Your task to perform on an android device: When is my next appointment? Image 0: 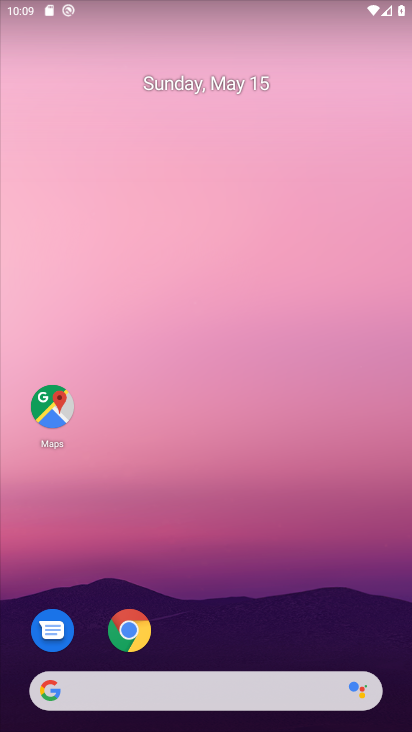
Step 0: press home button
Your task to perform on an android device: When is my next appointment? Image 1: 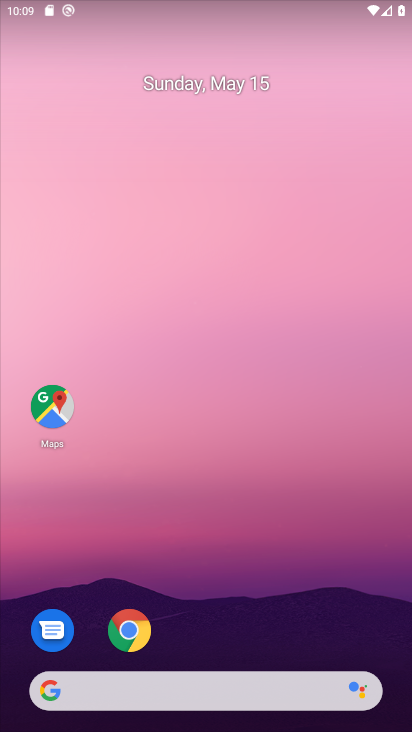
Step 1: drag from (209, 648) to (261, 62)
Your task to perform on an android device: When is my next appointment? Image 2: 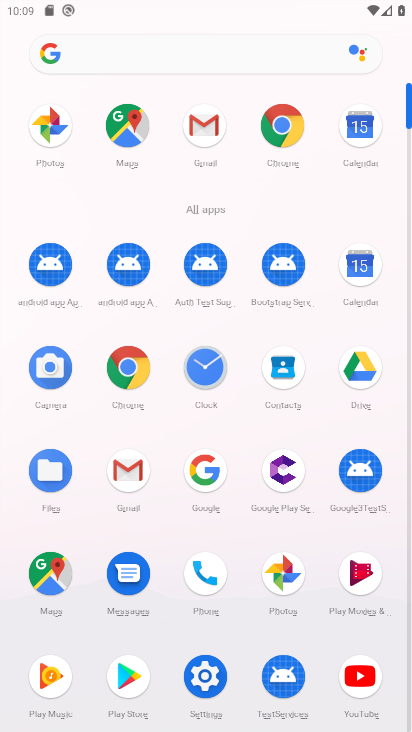
Step 2: click (359, 265)
Your task to perform on an android device: When is my next appointment? Image 3: 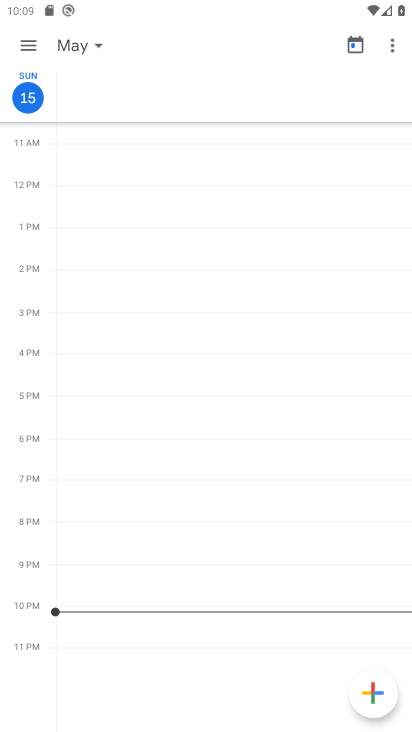
Step 3: click (43, 108)
Your task to perform on an android device: When is my next appointment? Image 4: 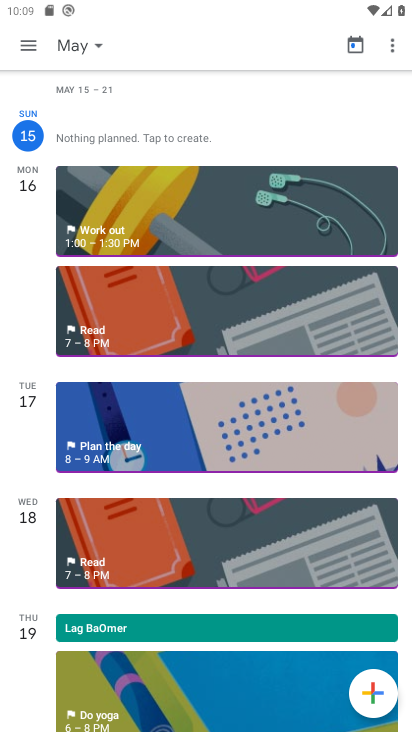
Step 4: task complete